Your task to perform on an android device: Do I have any events tomorrow? Image 0: 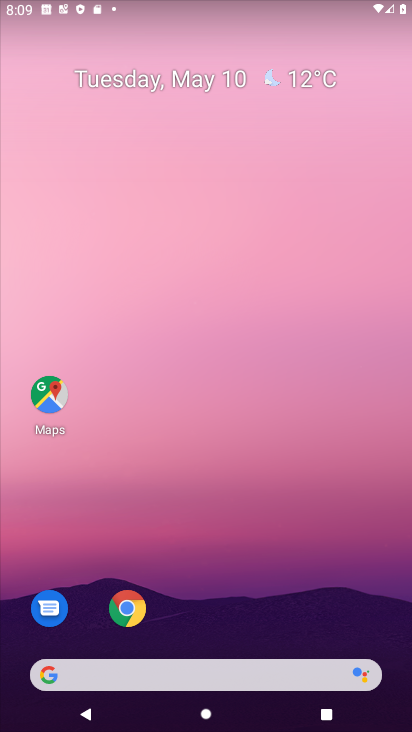
Step 0: drag from (189, 675) to (282, 111)
Your task to perform on an android device: Do I have any events tomorrow? Image 1: 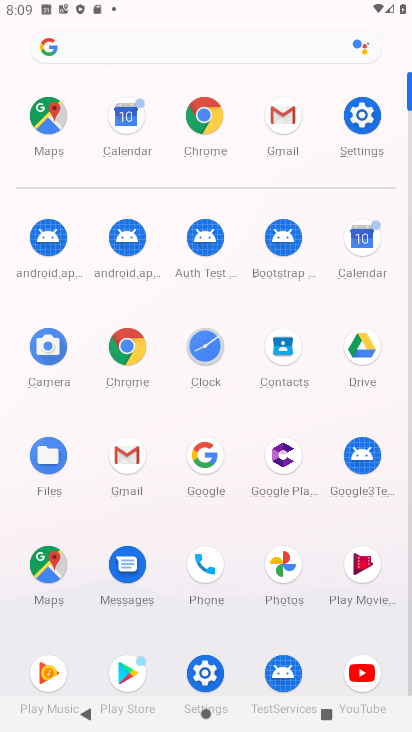
Step 1: click (364, 245)
Your task to perform on an android device: Do I have any events tomorrow? Image 2: 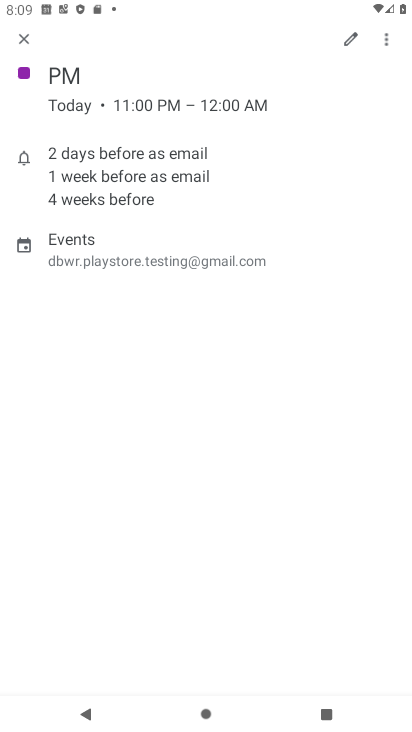
Step 2: click (21, 39)
Your task to perform on an android device: Do I have any events tomorrow? Image 3: 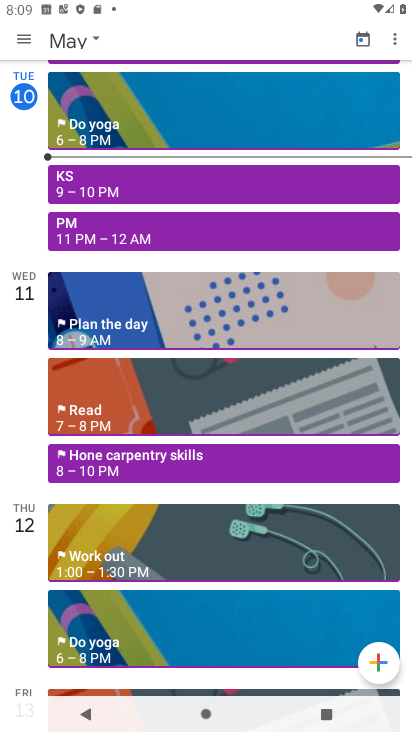
Step 3: click (61, 39)
Your task to perform on an android device: Do I have any events tomorrow? Image 4: 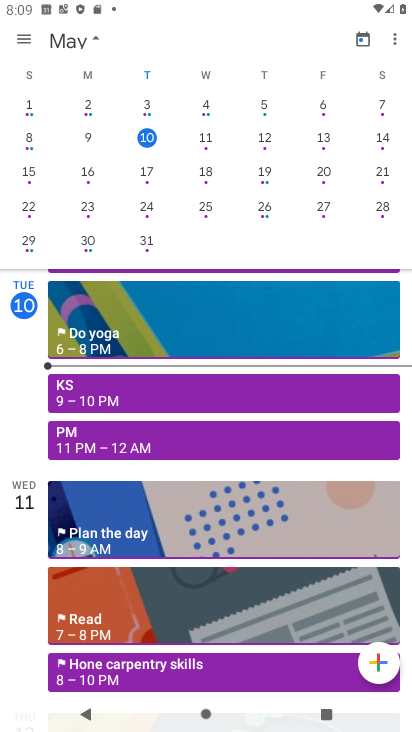
Step 4: click (201, 139)
Your task to perform on an android device: Do I have any events tomorrow? Image 5: 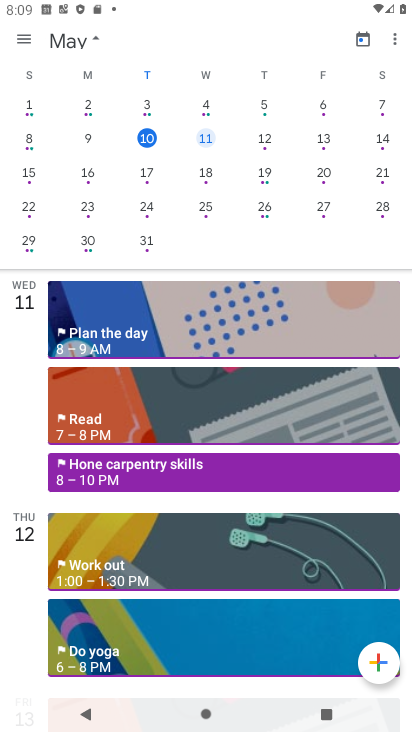
Step 5: click (69, 42)
Your task to perform on an android device: Do I have any events tomorrow? Image 6: 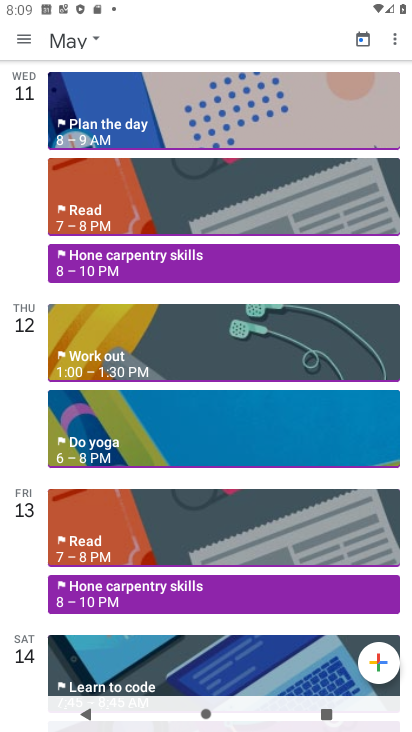
Step 6: click (60, 40)
Your task to perform on an android device: Do I have any events tomorrow? Image 7: 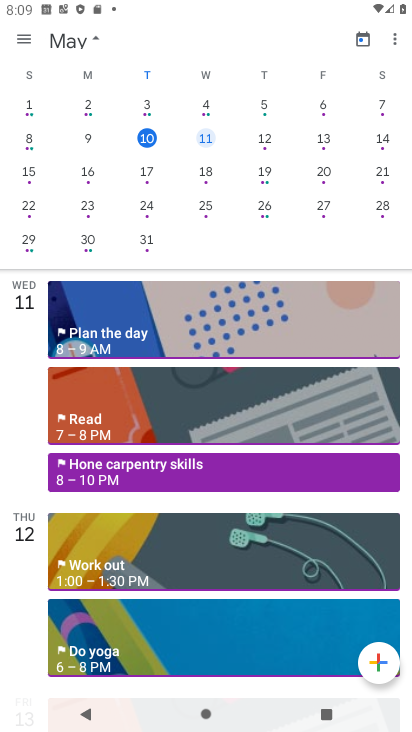
Step 7: click (26, 39)
Your task to perform on an android device: Do I have any events tomorrow? Image 8: 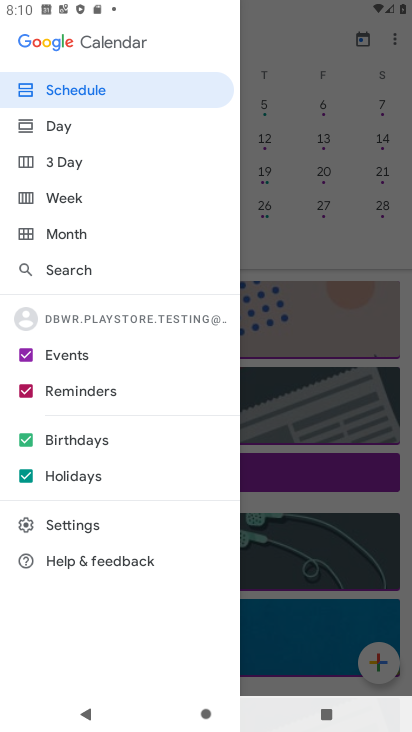
Step 8: click (68, 128)
Your task to perform on an android device: Do I have any events tomorrow? Image 9: 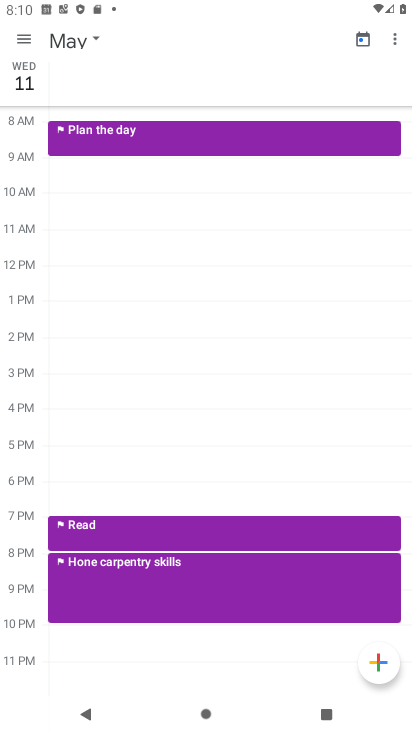
Step 9: click (29, 35)
Your task to perform on an android device: Do I have any events tomorrow? Image 10: 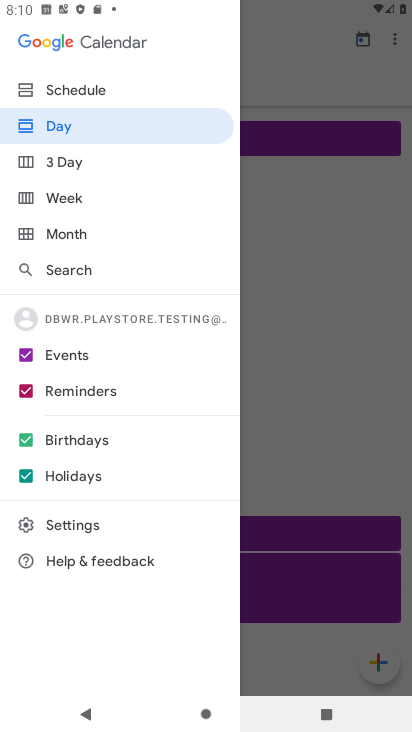
Step 10: click (72, 91)
Your task to perform on an android device: Do I have any events tomorrow? Image 11: 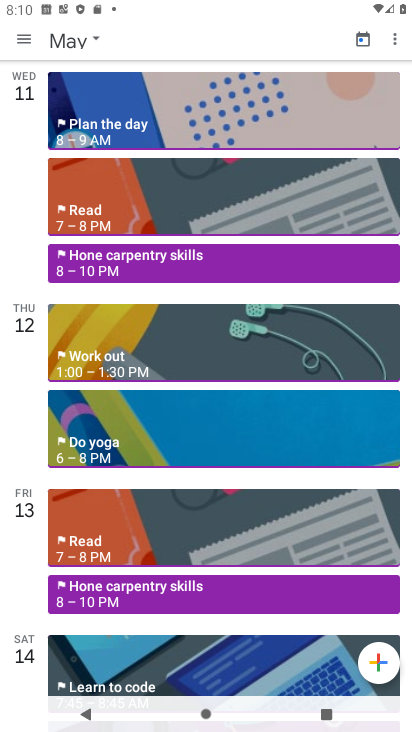
Step 11: click (130, 269)
Your task to perform on an android device: Do I have any events tomorrow? Image 12: 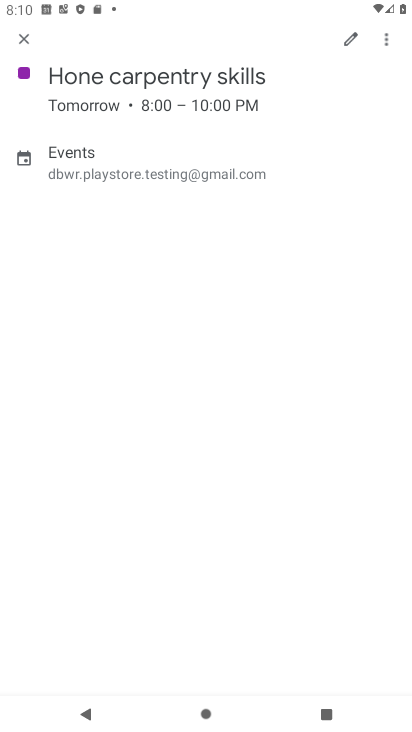
Step 12: task complete